Your task to perform on an android device: allow cookies in the chrome app Image 0: 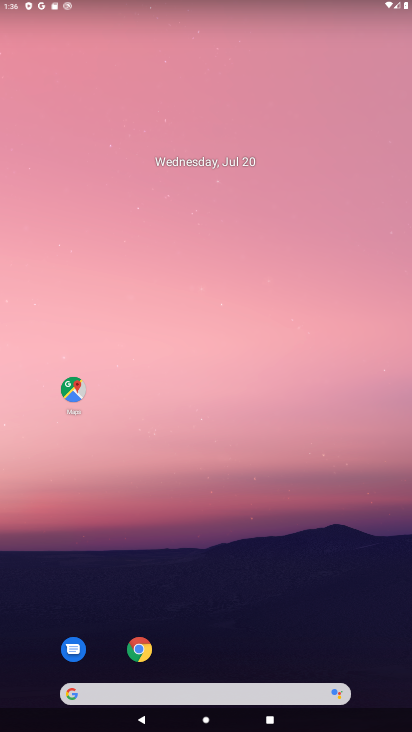
Step 0: click (134, 661)
Your task to perform on an android device: allow cookies in the chrome app Image 1: 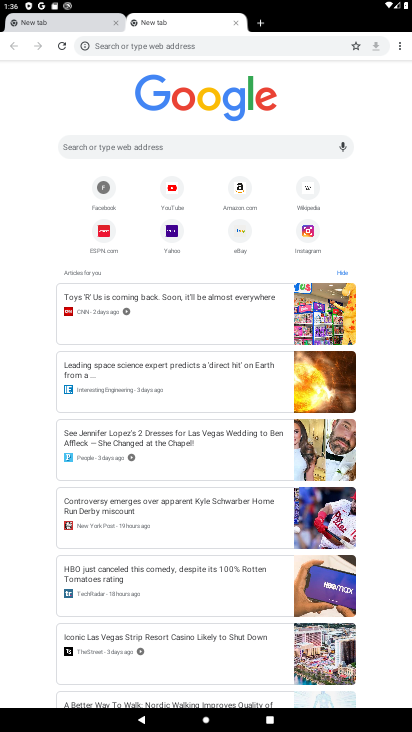
Step 1: click (401, 47)
Your task to perform on an android device: allow cookies in the chrome app Image 2: 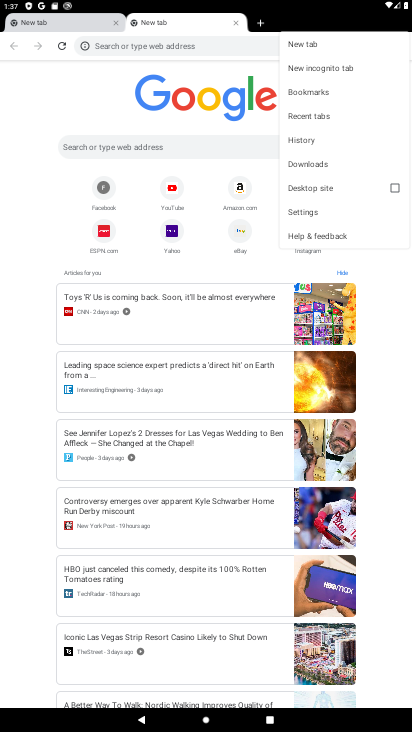
Step 2: click (314, 202)
Your task to perform on an android device: allow cookies in the chrome app Image 3: 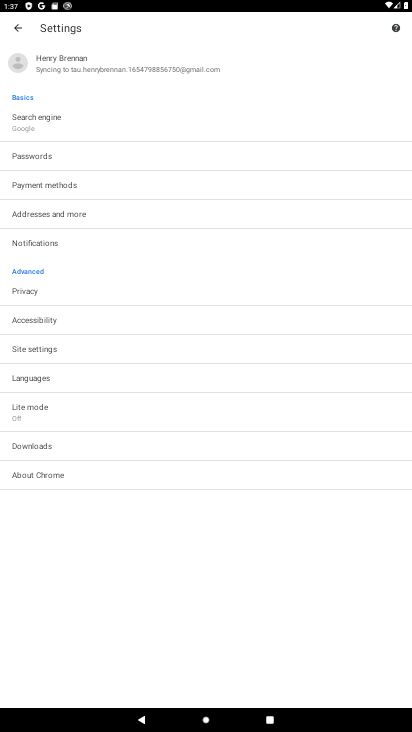
Step 3: click (63, 356)
Your task to perform on an android device: allow cookies in the chrome app Image 4: 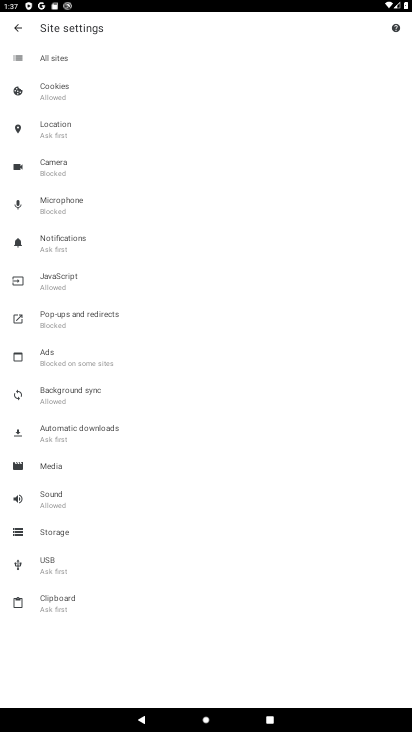
Step 4: click (99, 87)
Your task to perform on an android device: allow cookies in the chrome app Image 5: 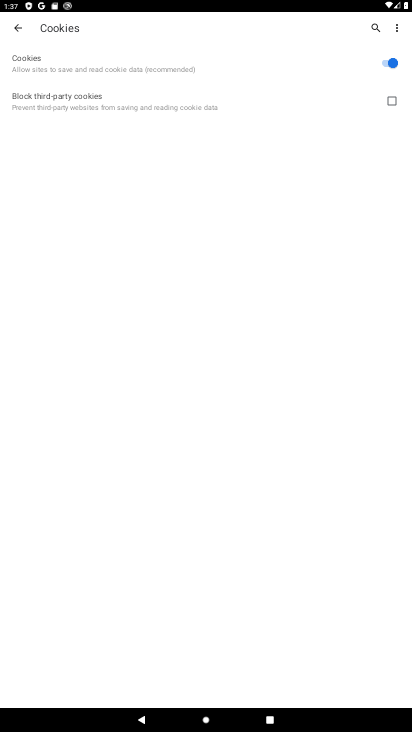
Step 5: task complete